Your task to perform on an android device: Open calendar and show me the fourth week of next month Image 0: 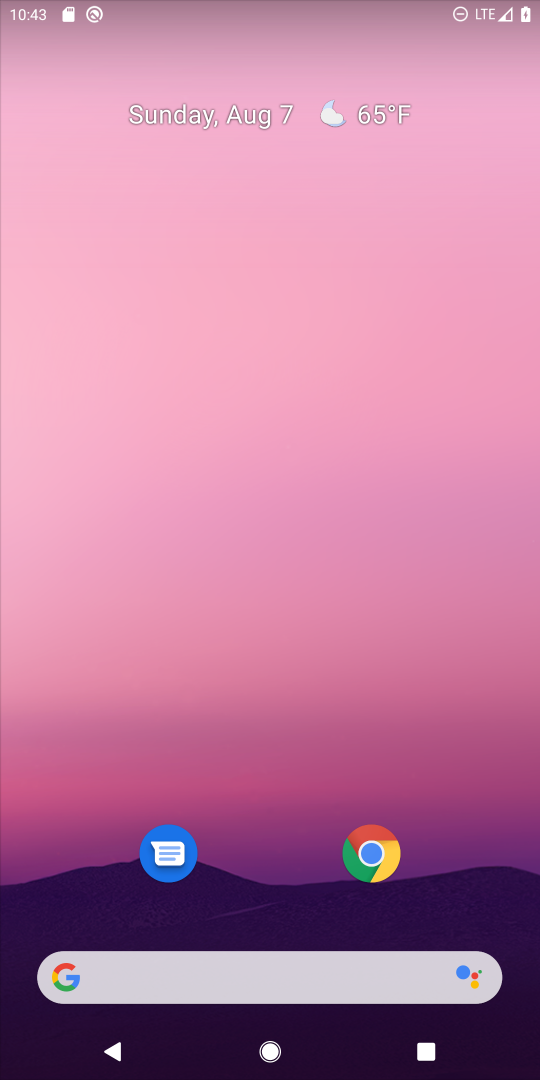
Step 0: drag from (211, 943) to (283, 128)
Your task to perform on an android device: Open calendar and show me the fourth week of next month Image 1: 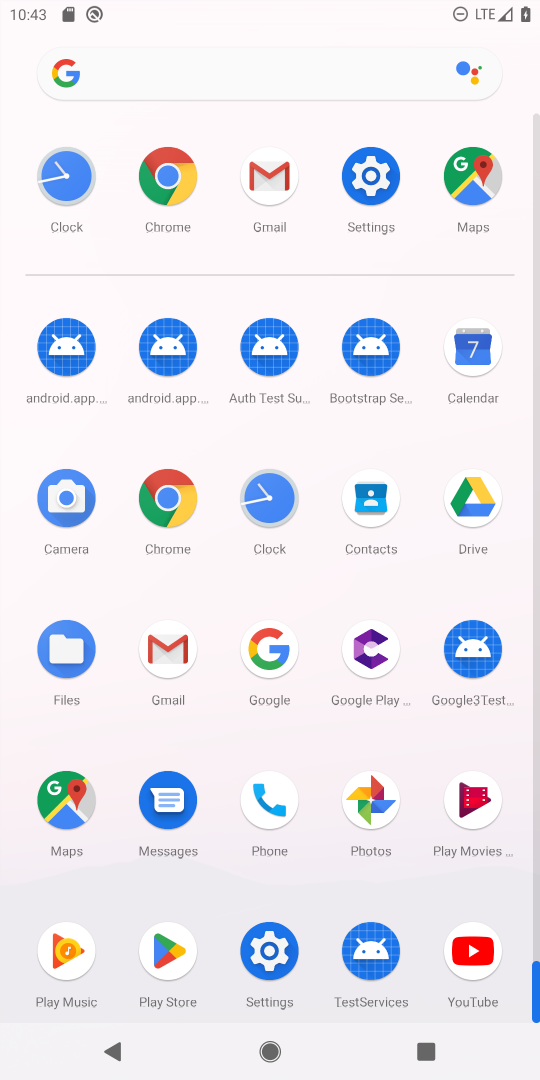
Step 1: click (465, 336)
Your task to perform on an android device: Open calendar and show me the fourth week of next month Image 2: 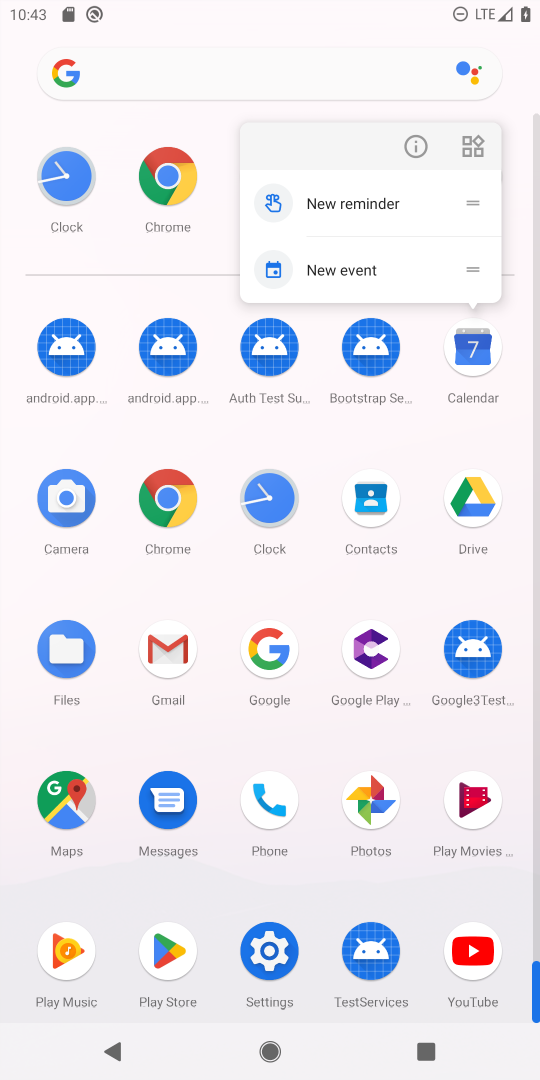
Step 2: click (465, 336)
Your task to perform on an android device: Open calendar and show me the fourth week of next month Image 3: 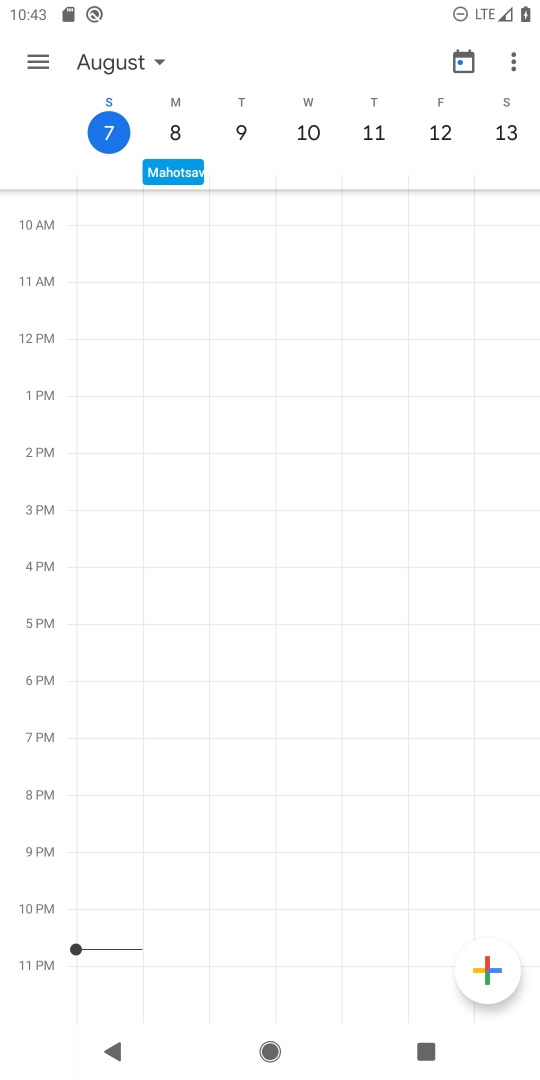
Step 3: task complete